Your task to perform on an android device: check data usage Image 0: 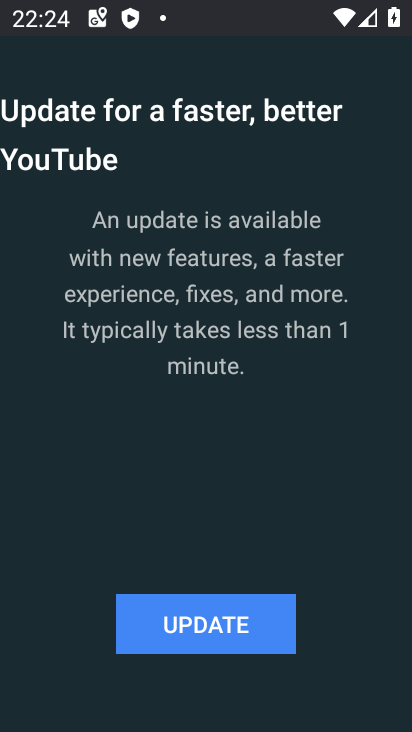
Step 0: press home button
Your task to perform on an android device: check data usage Image 1: 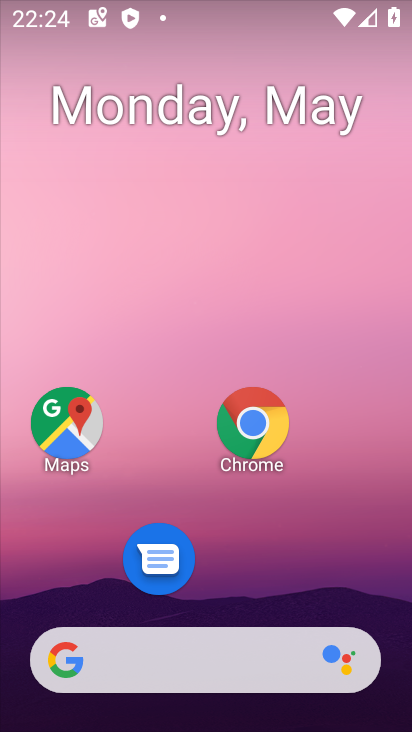
Step 1: drag from (298, 599) to (294, 305)
Your task to perform on an android device: check data usage Image 2: 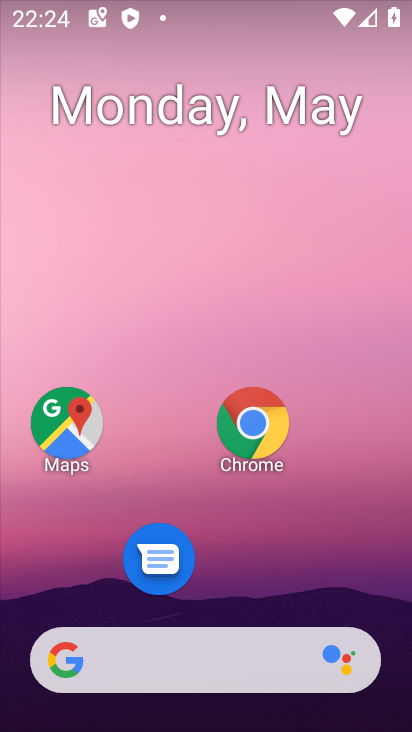
Step 2: drag from (204, 615) to (204, 315)
Your task to perform on an android device: check data usage Image 3: 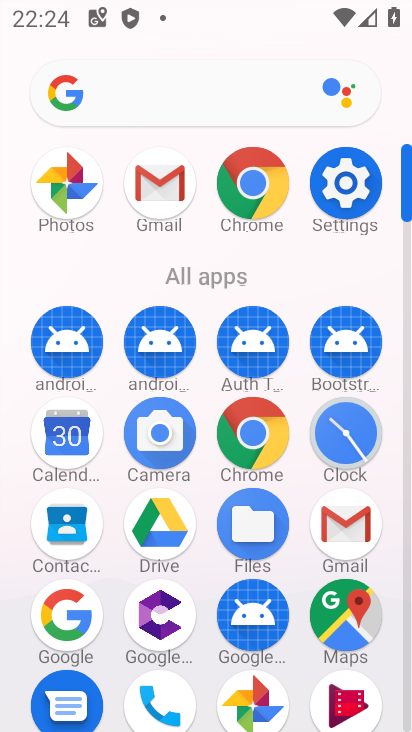
Step 3: click (380, 164)
Your task to perform on an android device: check data usage Image 4: 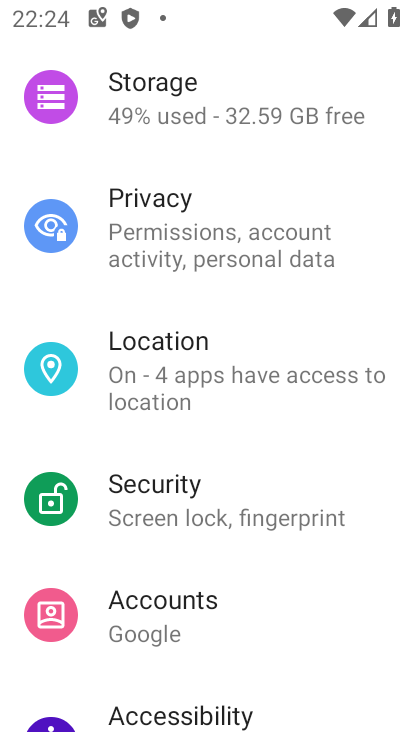
Step 4: drag from (171, 142) to (260, 678)
Your task to perform on an android device: check data usage Image 5: 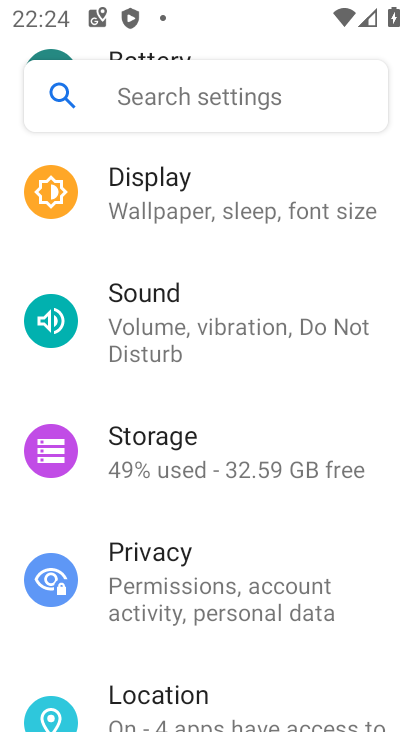
Step 5: drag from (241, 219) to (342, 662)
Your task to perform on an android device: check data usage Image 6: 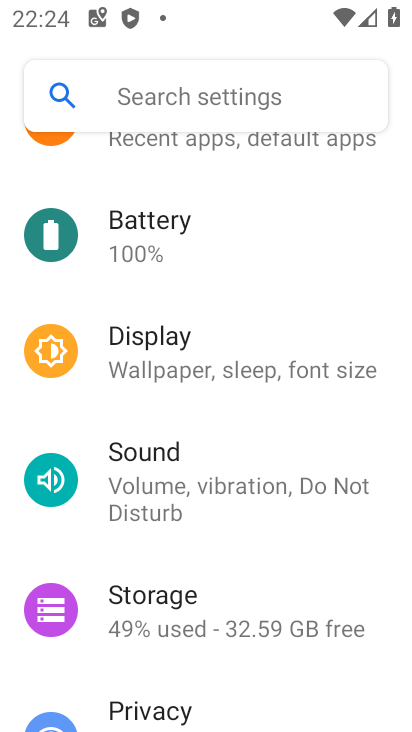
Step 6: drag from (203, 254) to (245, 592)
Your task to perform on an android device: check data usage Image 7: 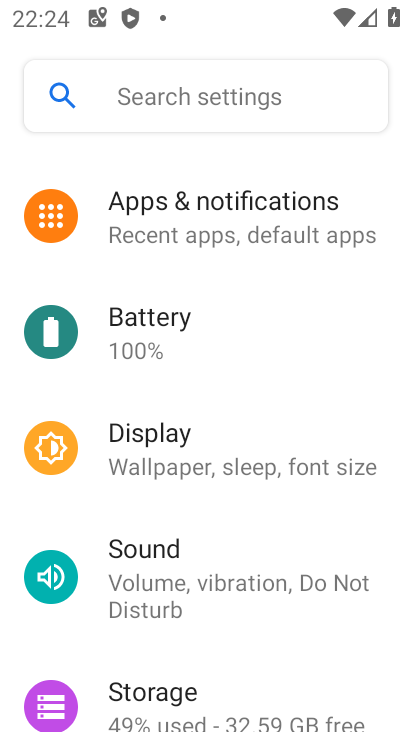
Step 7: drag from (139, 674) to (235, 196)
Your task to perform on an android device: check data usage Image 8: 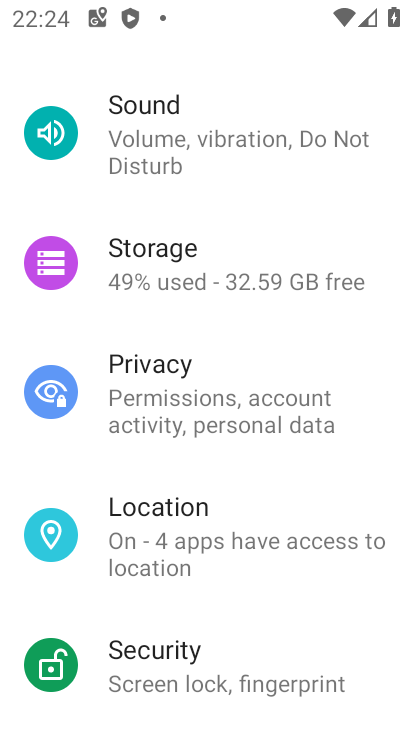
Step 8: drag from (289, 174) to (297, 608)
Your task to perform on an android device: check data usage Image 9: 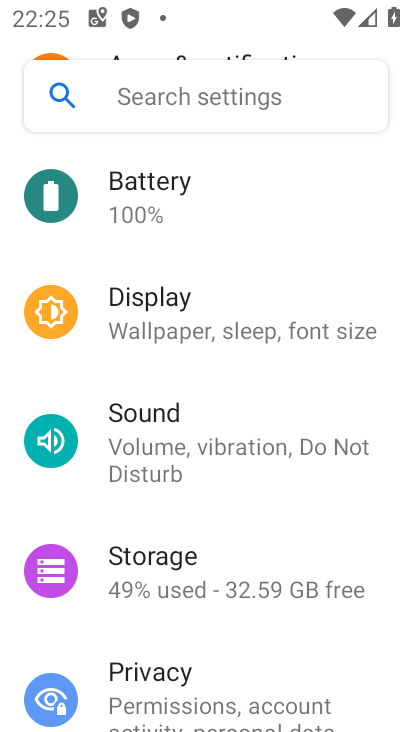
Step 9: drag from (249, 213) to (262, 596)
Your task to perform on an android device: check data usage Image 10: 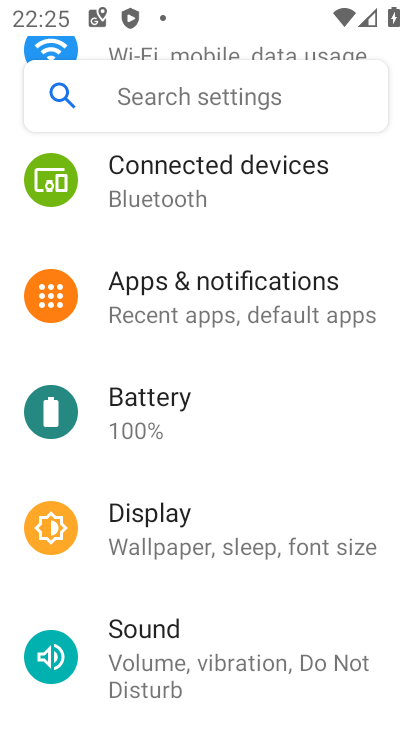
Step 10: drag from (245, 163) to (275, 537)
Your task to perform on an android device: check data usage Image 11: 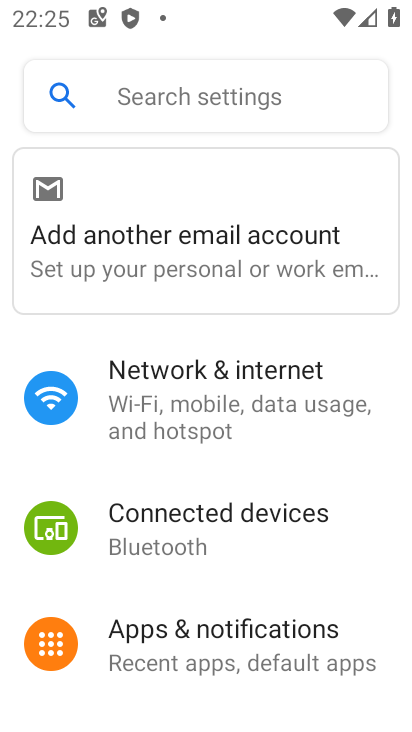
Step 11: click (246, 397)
Your task to perform on an android device: check data usage Image 12: 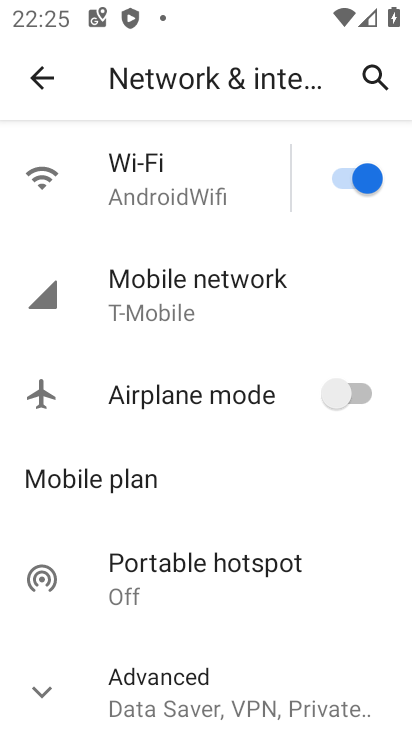
Step 12: task complete